Your task to perform on an android device: Open my contact list Image 0: 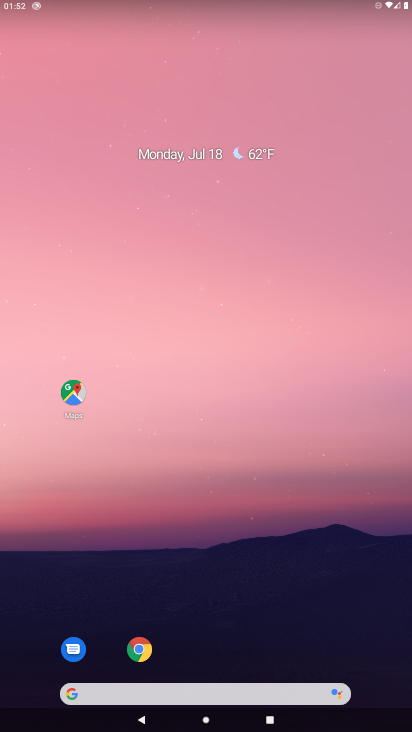
Step 0: drag from (95, 503) to (204, 19)
Your task to perform on an android device: Open my contact list Image 1: 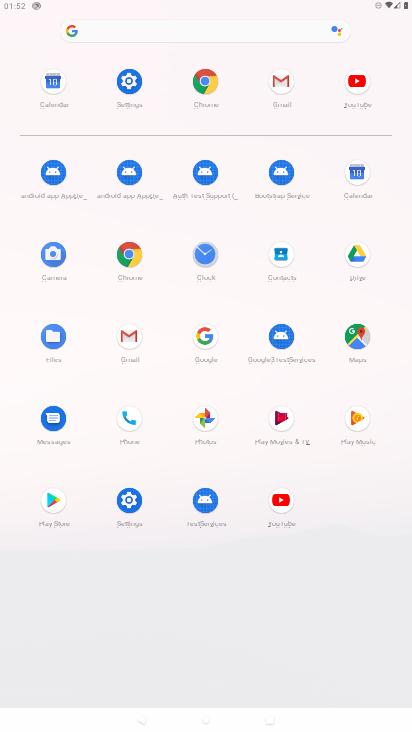
Step 1: click (285, 256)
Your task to perform on an android device: Open my contact list Image 2: 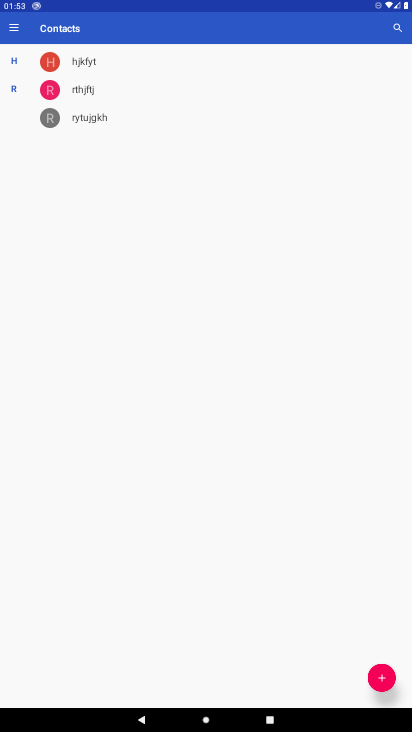
Step 2: task complete